Your task to perform on an android device: open app "Venmo" (install if not already installed) and enter user name: "bleedings@gmail.com" and password: "copied" Image 0: 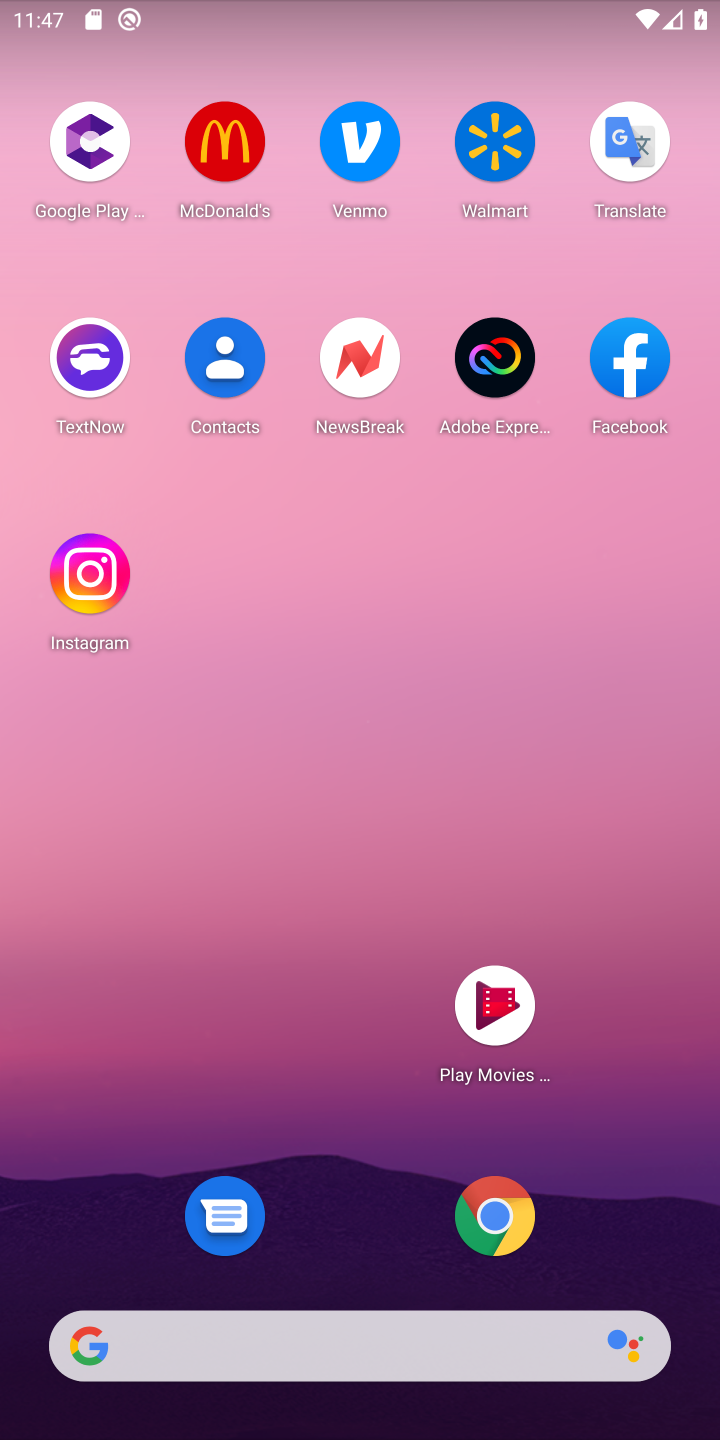
Step 0: drag from (600, 1195) to (579, 436)
Your task to perform on an android device: open app "Venmo" (install if not already installed) and enter user name: "bleedings@gmail.com" and password: "copied" Image 1: 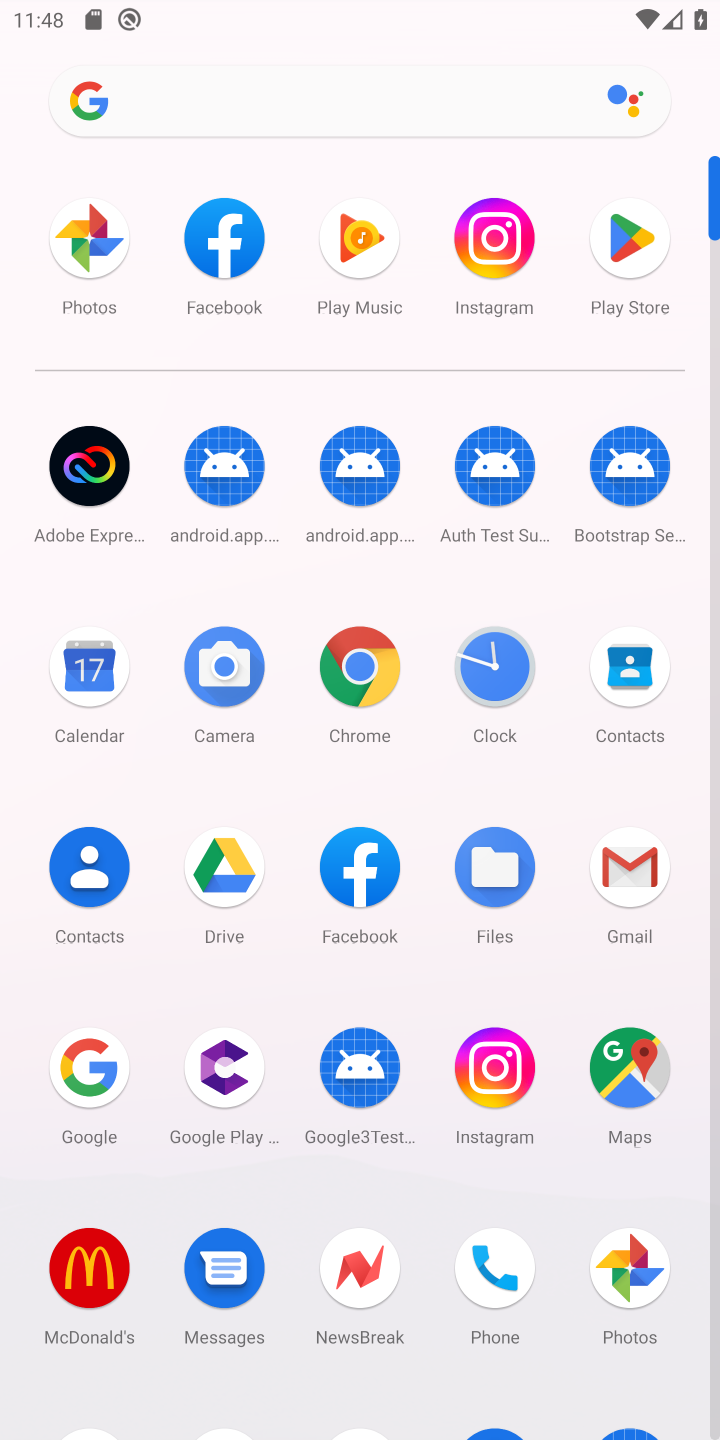
Step 1: drag from (421, 992) to (361, 631)
Your task to perform on an android device: open app "Venmo" (install if not already installed) and enter user name: "bleedings@gmail.com" and password: "copied" Image 2: 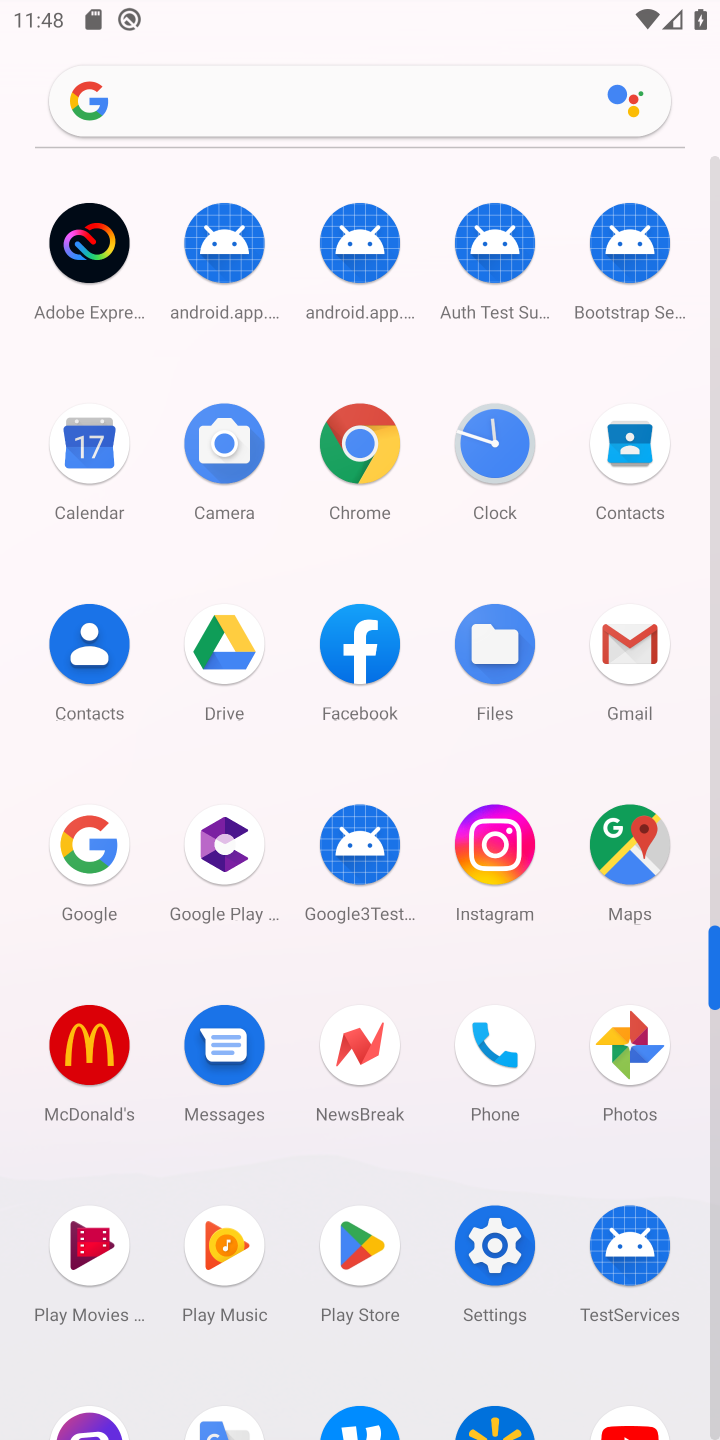
Step 2: click (353, 1237)
Your task to perform on an android device: open app "Venmo" (install if not already installed) and enter user name: "bleedings@gmail.com" and password: "copied" Image 3: 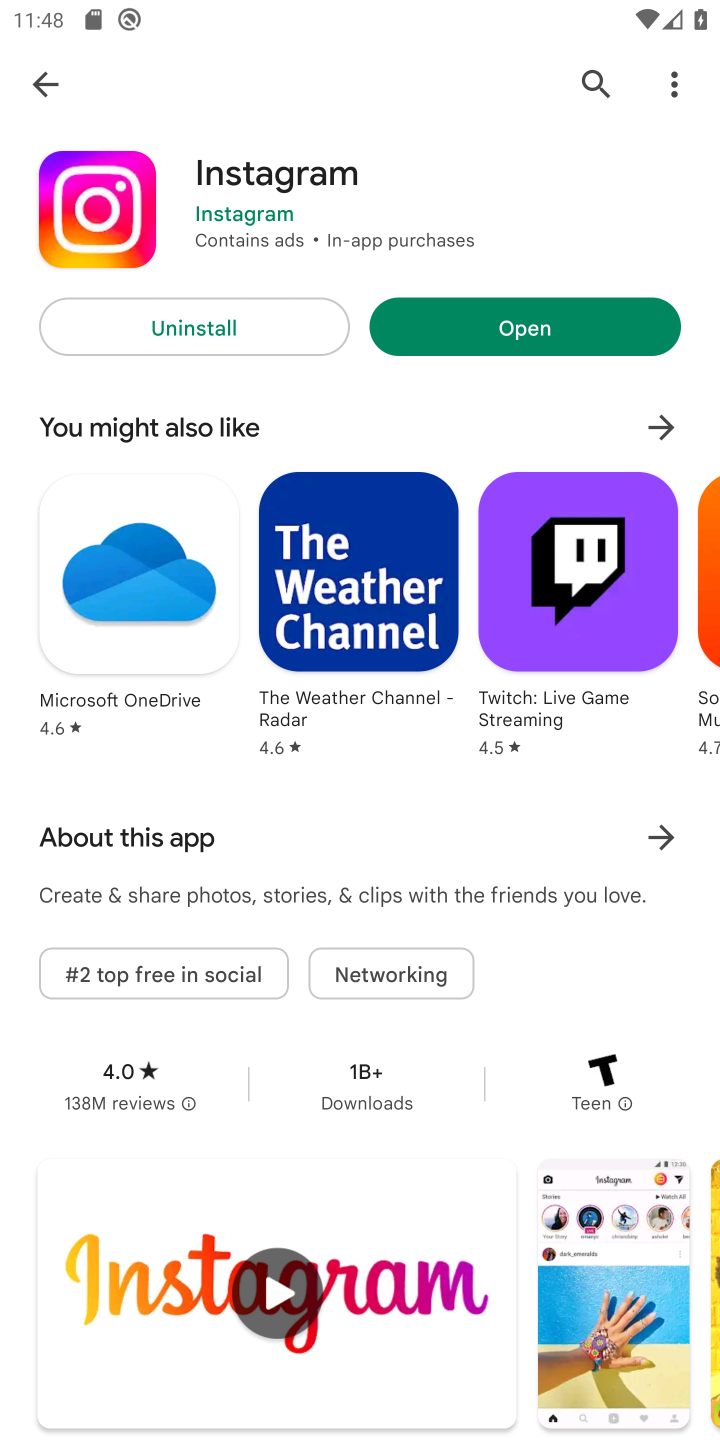
Step 3: click (602, 89)
Your task to perform on an android device: open app "Venmo" (install if not already installed) and enter user name: "bleedings@gmail.com" and password: "copied" Image 4: 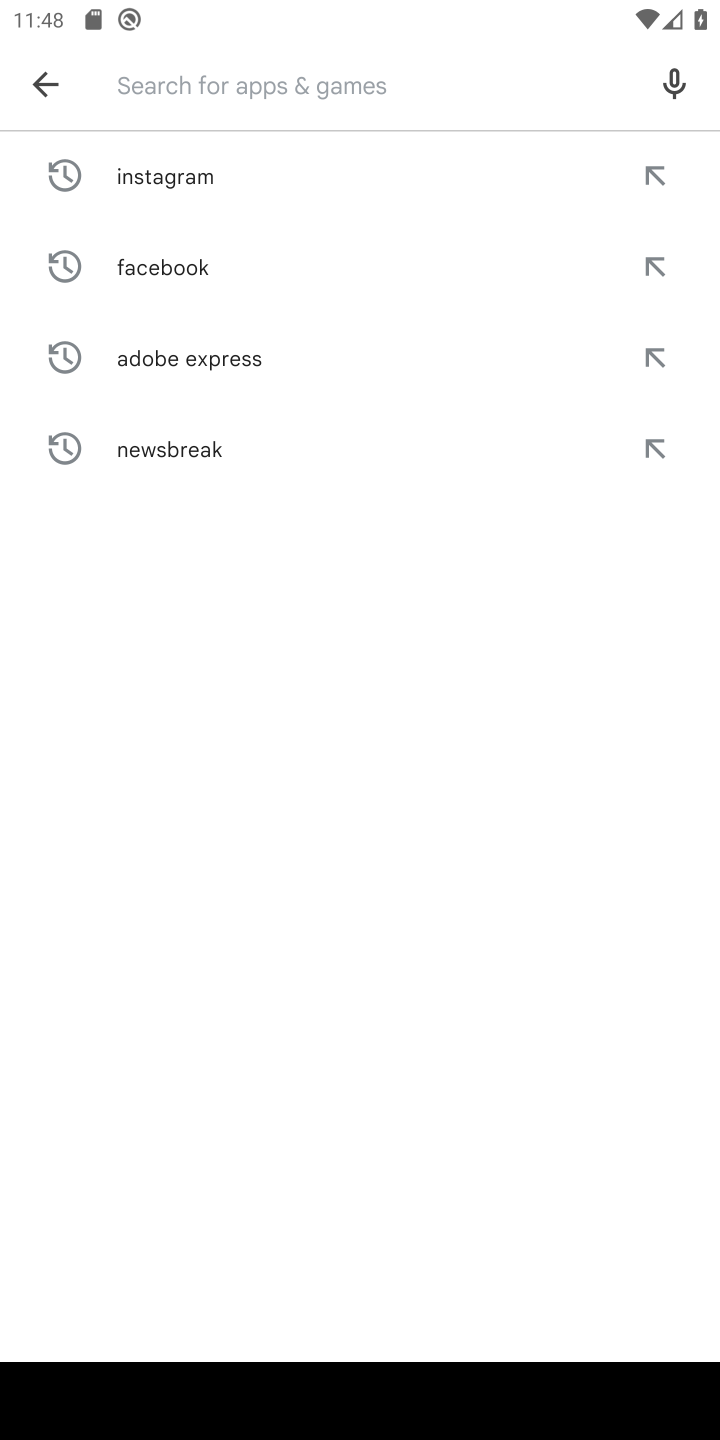
Step 4: type "venmo"
Your task to perform on an android device: open app "Venmo" (install if not already installed) and enter user name: "bleedings@gmail.com" and password: "copied" Image 5: 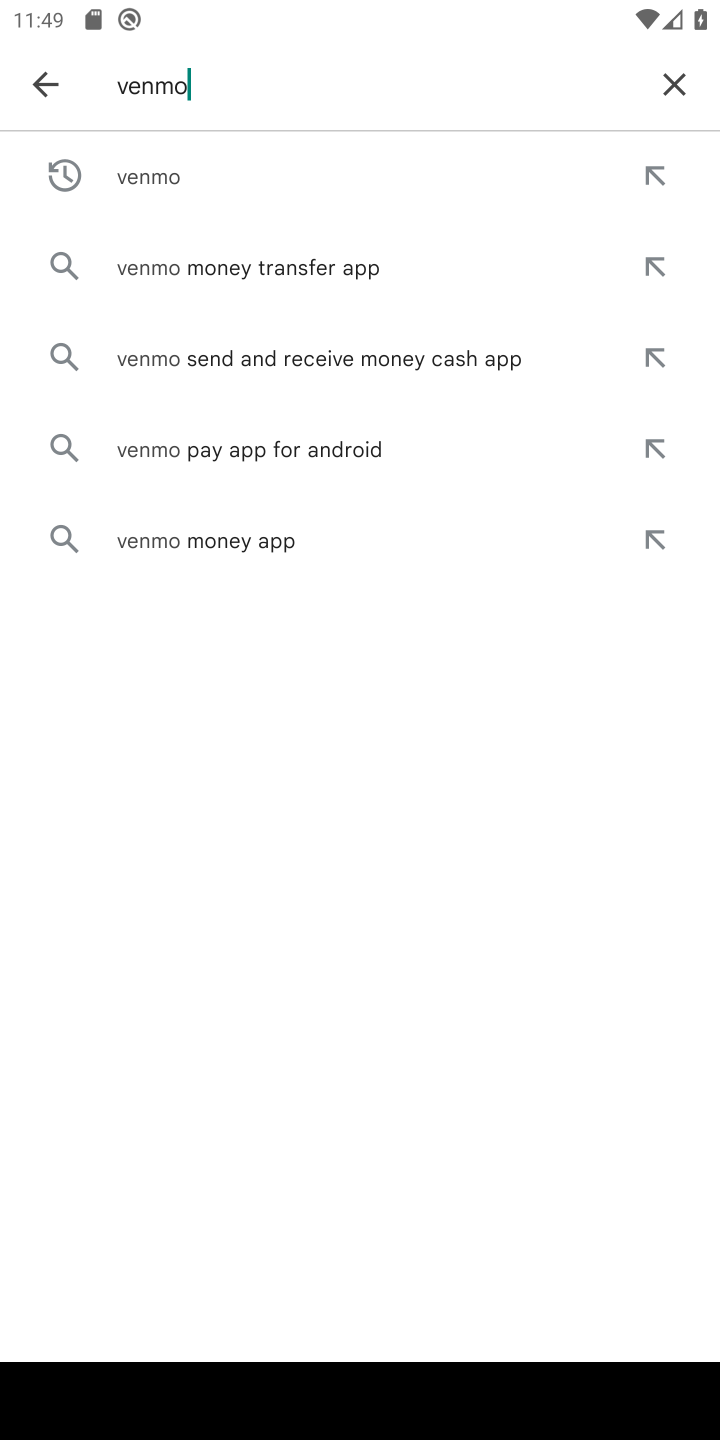
Step 5: click (434, 174)
Your task to perform on an android device: open app "Venmo" (install if not already installed) and enter user name: "bleedings@gmail.com" and password: "copied" Image 6: 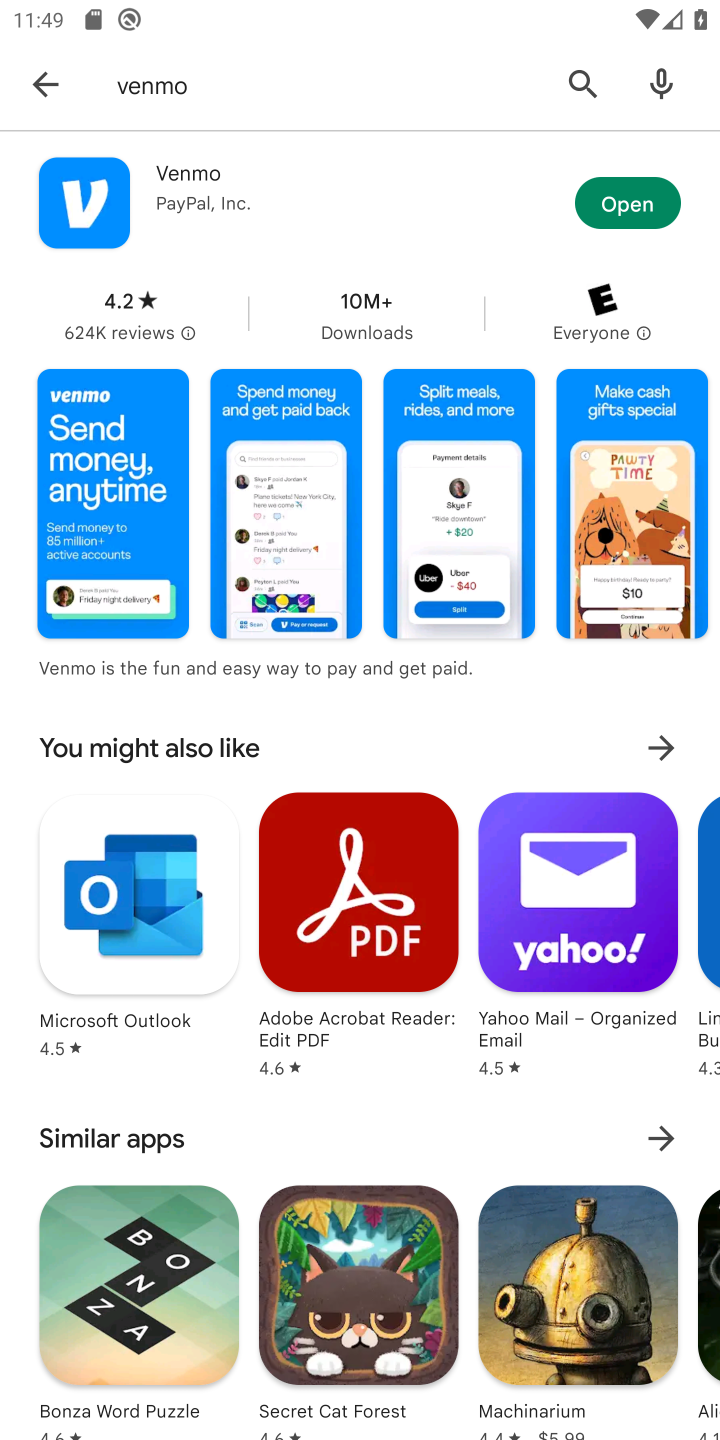
Step 6: click (608, 196)
Your task to perform on an android device: open app "Venmo" (install if not already installed) and enter user name: "bleedings@gmail.com" and password: "copied" Image 7: 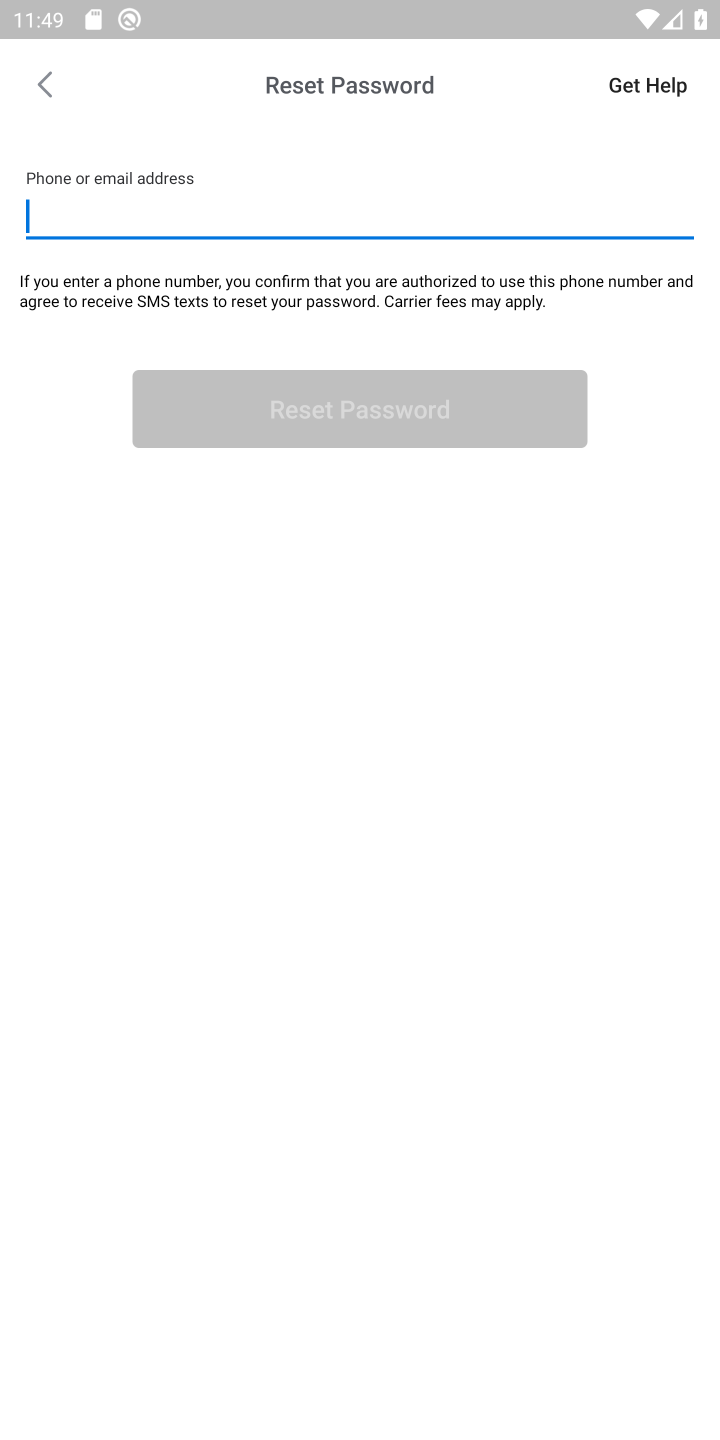
Step 7: click (31, 68)
Your task to perform on an android device: open app "Venmo" (install if not already installed) and enter user name: "bleedings@gmail.com" and password: "copied" Image 8: 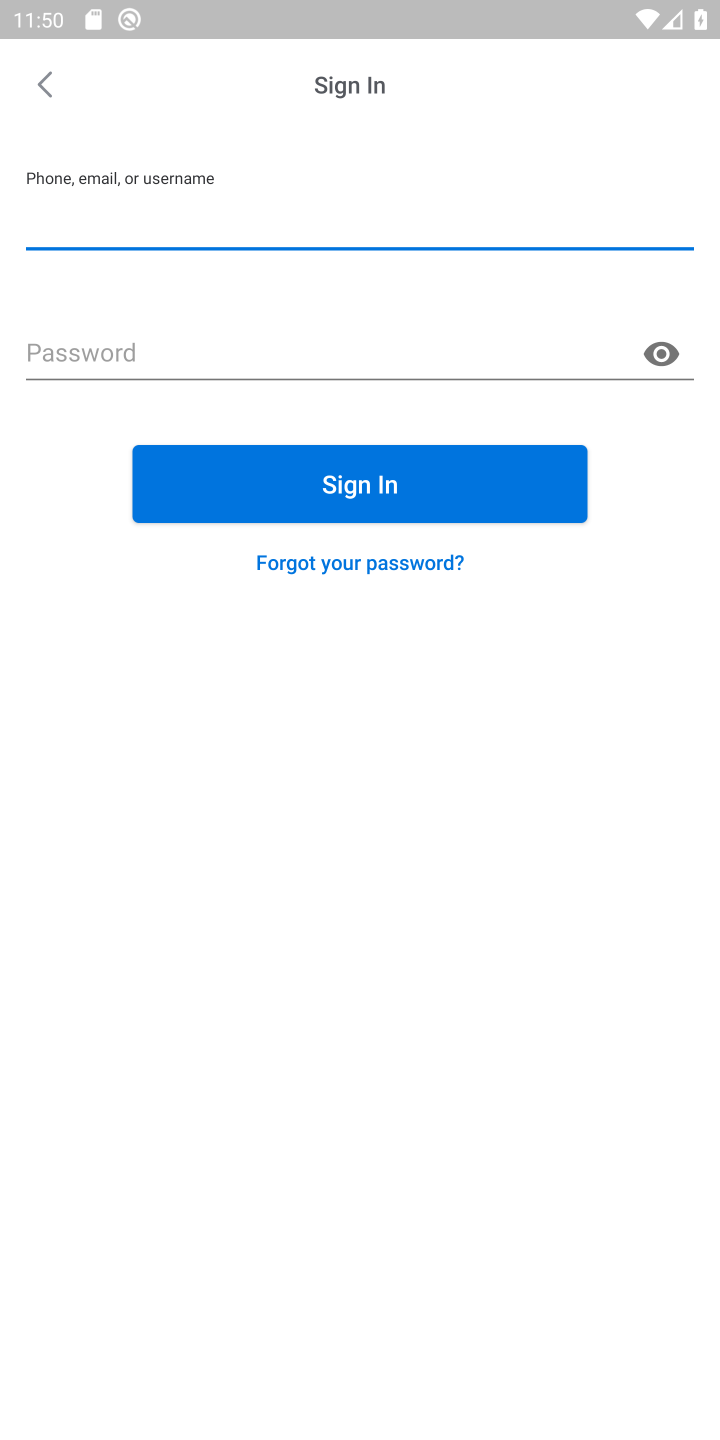
Step 8: type "bleedings@gmail.com"
Your task to perform on an android device: open app "Venmo" (install if not already installed) and enter user name: "bleedings@gmail.com" and password: "copied" Image 9: 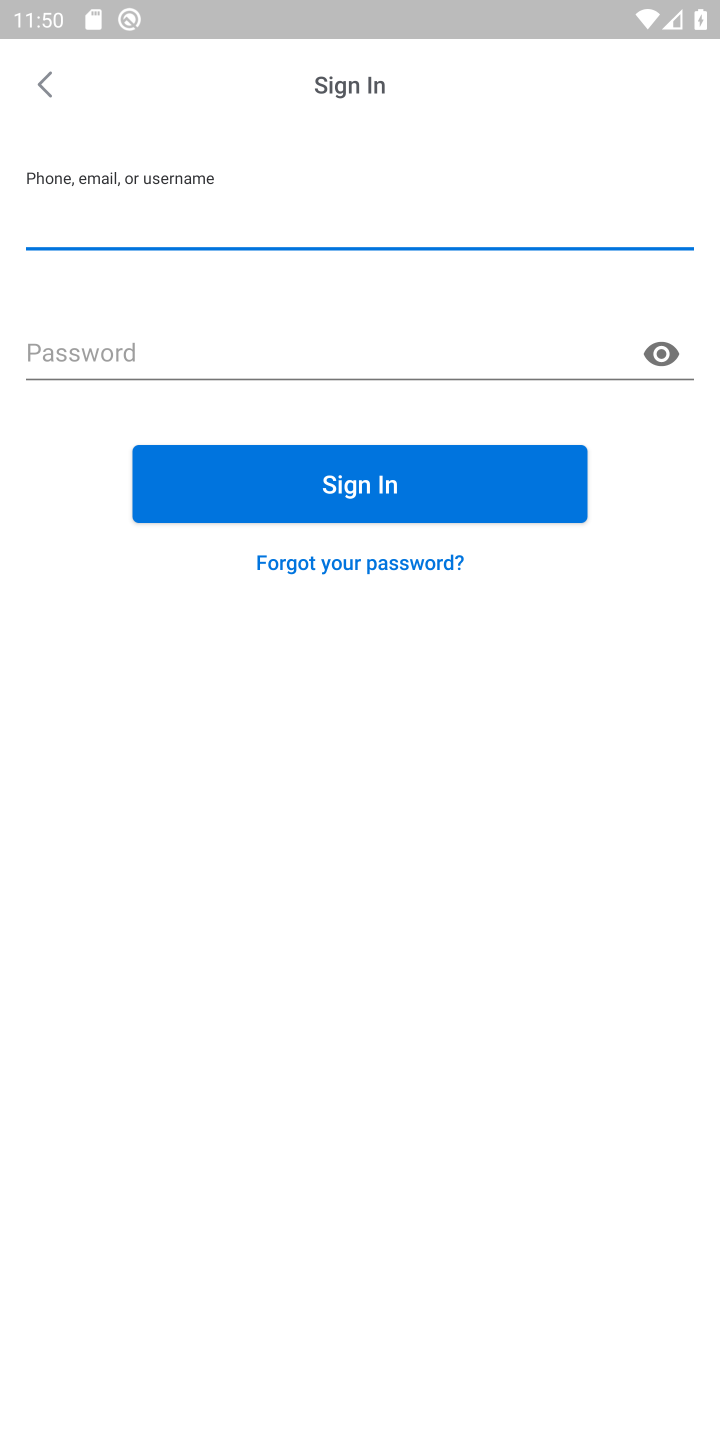
Step 9: click (443, 334)
Your task to perform on an android device: open app "Venmo" (install if not already installed) and enter user name: "bleedings@gmail.com" and password: "copied" Image 10: 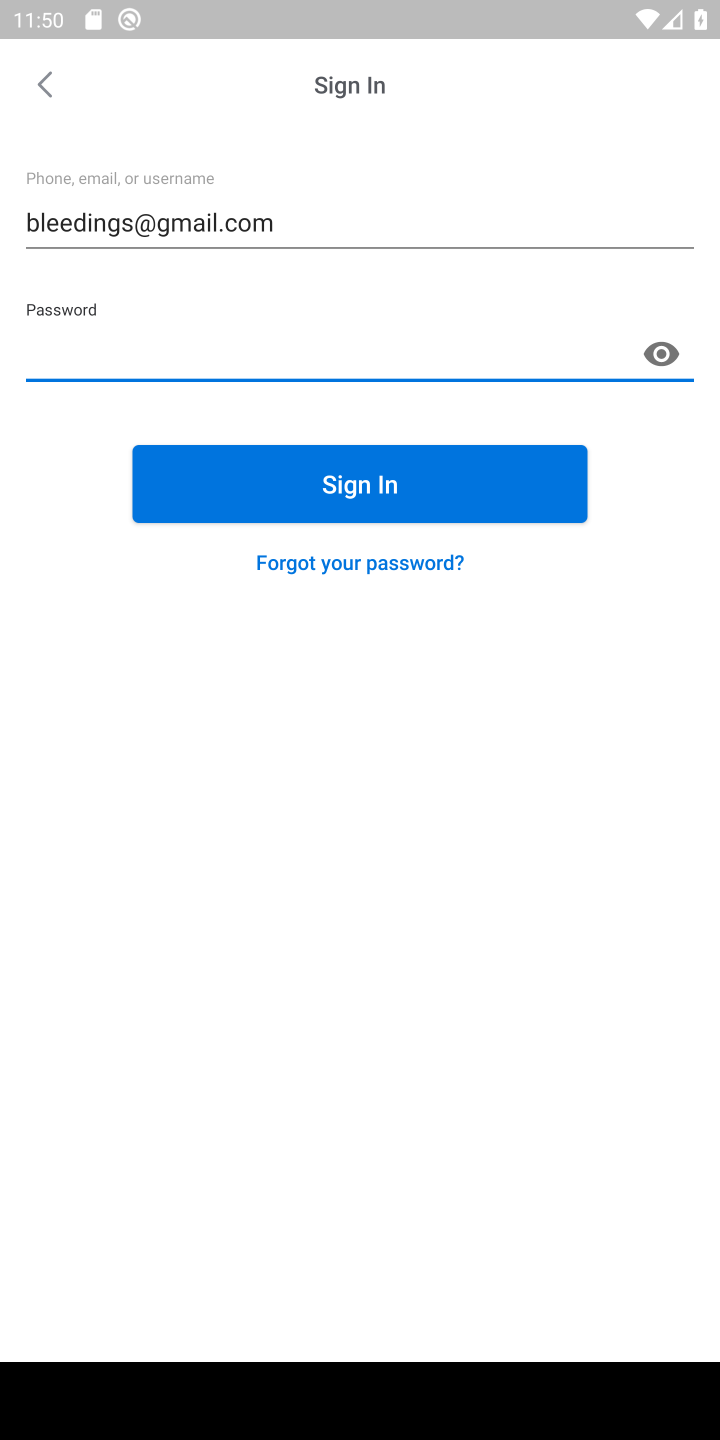
Step 10: type "copied"
Your task to perform on an android device: open app "Venmo" (install if not already installed) and enter user name: "bleedings@gmail.com" and password: "copied" Image 11: 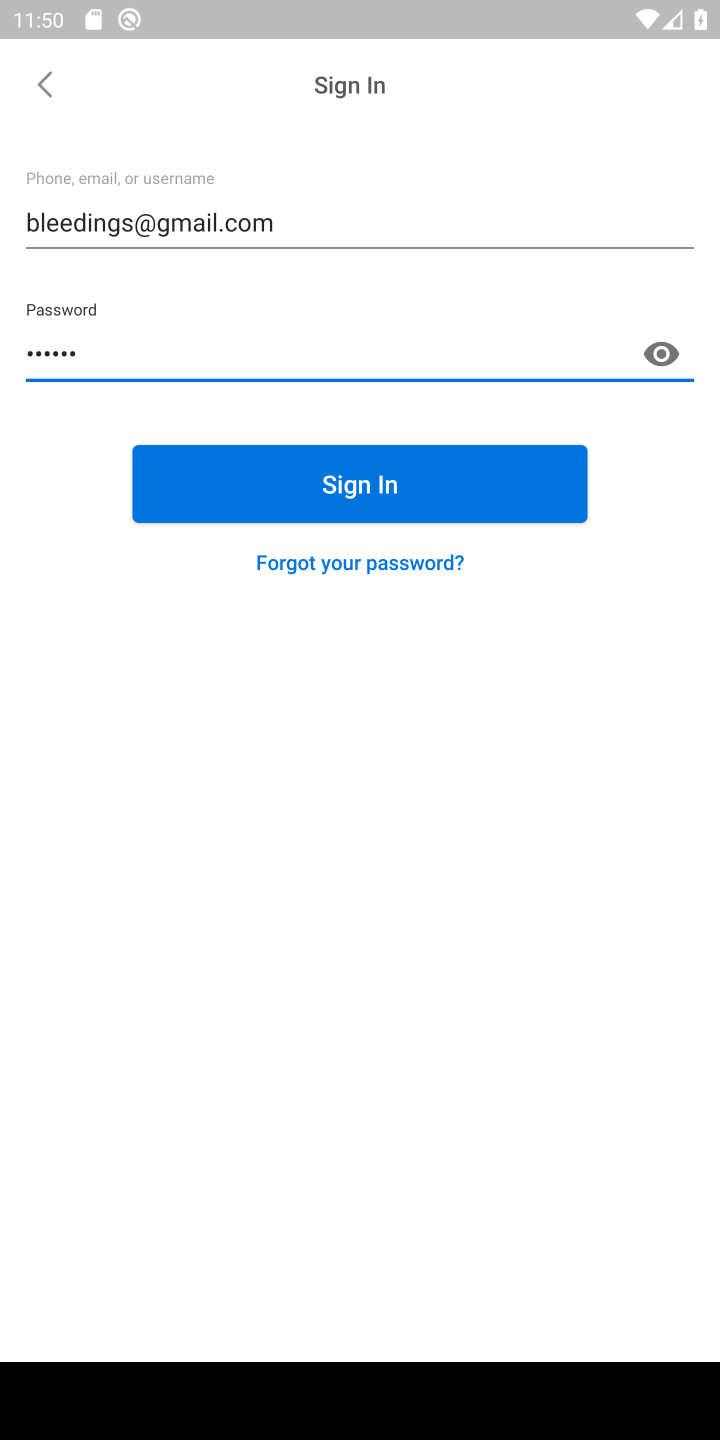
Step 11: task complete